Your task to perform on an android device: Search for a new foundation on Sephora Image 0: 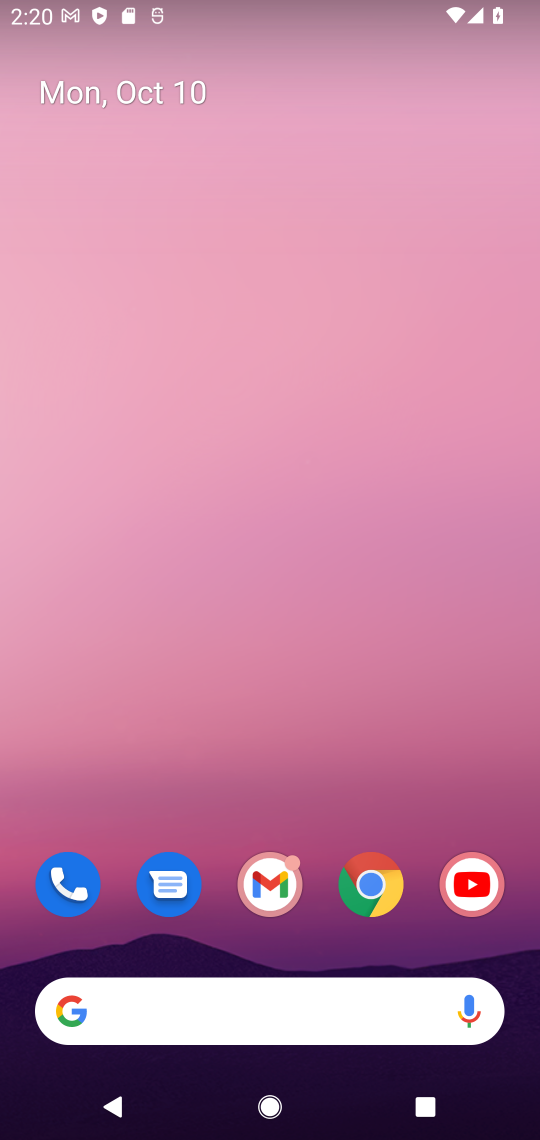
Step 0: click (380, 899)
Your task to perform on an android device: Search for a new foundation on Sephora Image 1: 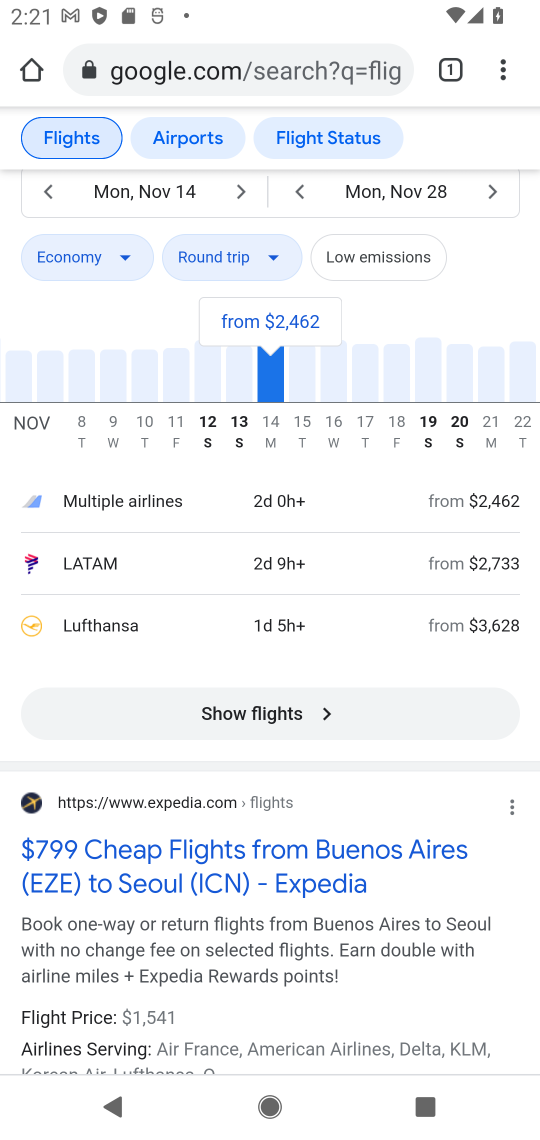
Step 1: click (207, 78)
Your task to perform on an android device: Search for a new foundation on Sephora Image 2: 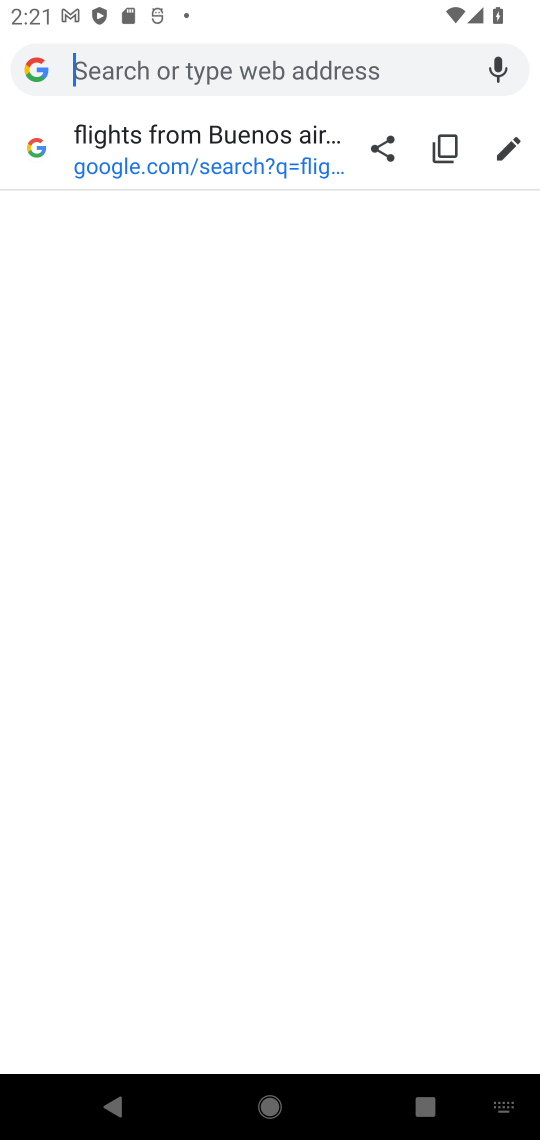
Step 2: type "new foundation on Sephora"
Your task to perform on an android device: Search for a new foundation on Sephora Image 3: 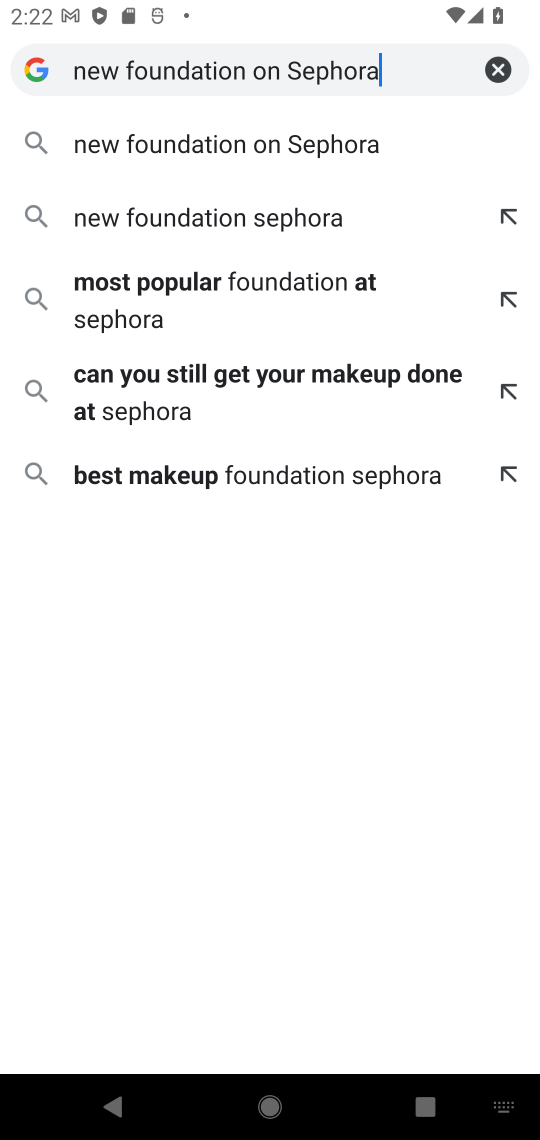
Step 3: click (274, 150)
Your task to perform on an android device: Search for a new foundation on Sephora Image 4: 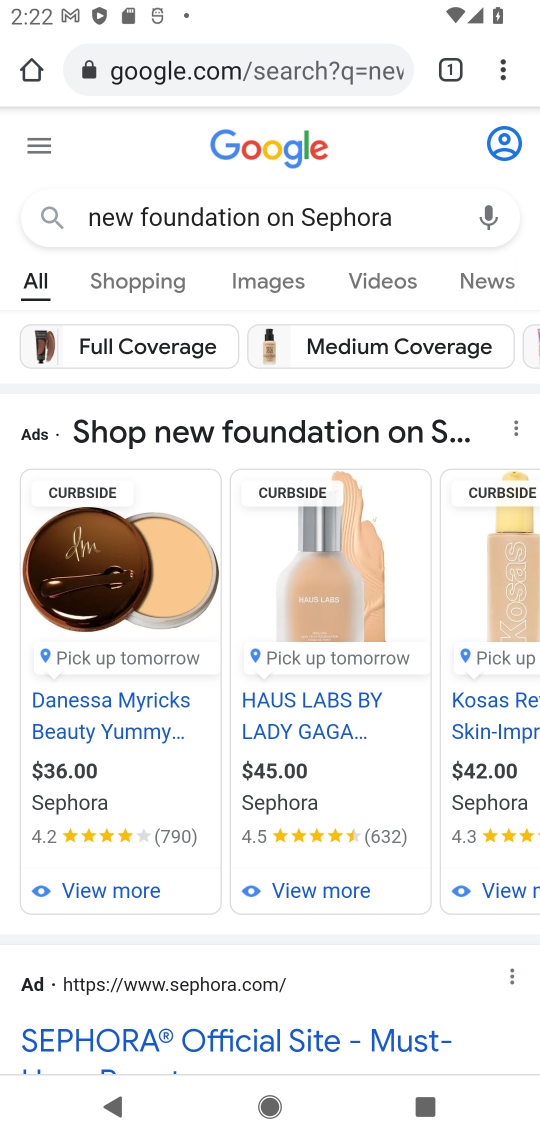
Step 4: click (126, 1035)
Your task to perform on an android device: Search for a new foundation on Sephora Image 5: 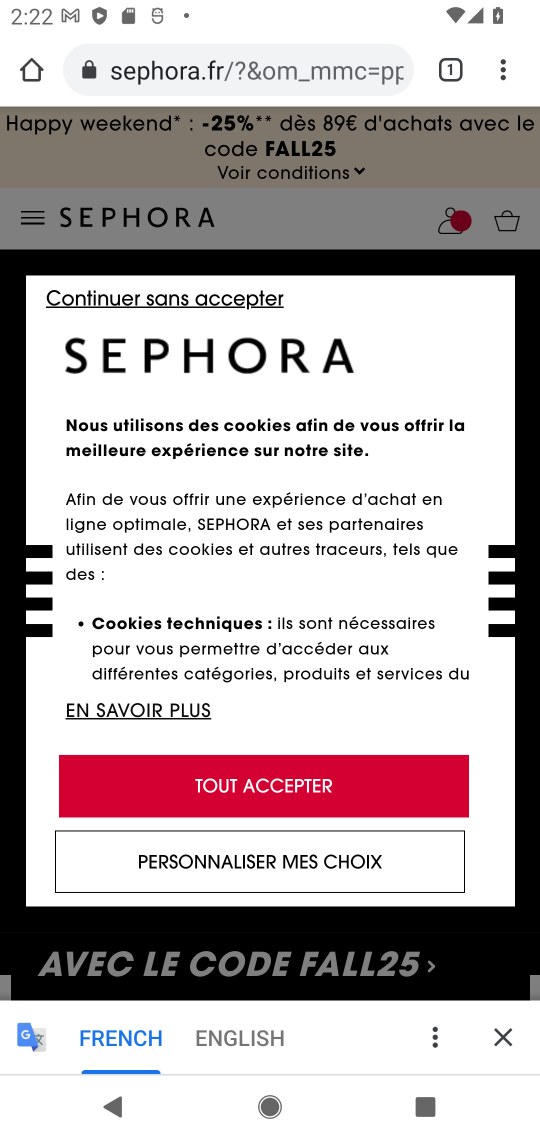
Step 5: click (229, 788)
Your task to perform on an android device: Search for a new foundation on Sephora Image 6: 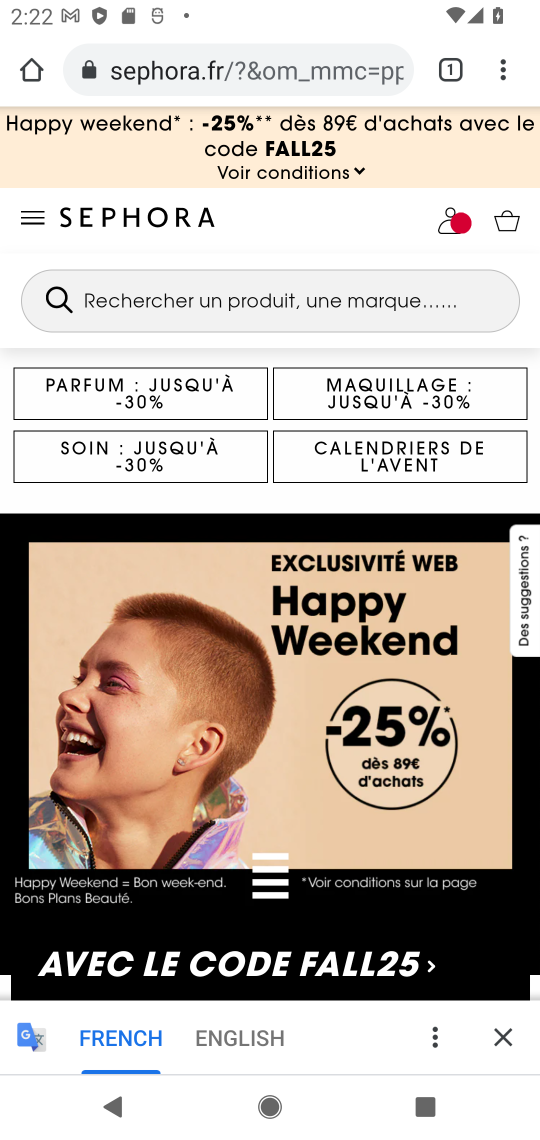
Step 6: click (168, 297)
Your task to perform on an android device: Search for a new foundation on Sephora Image 7: 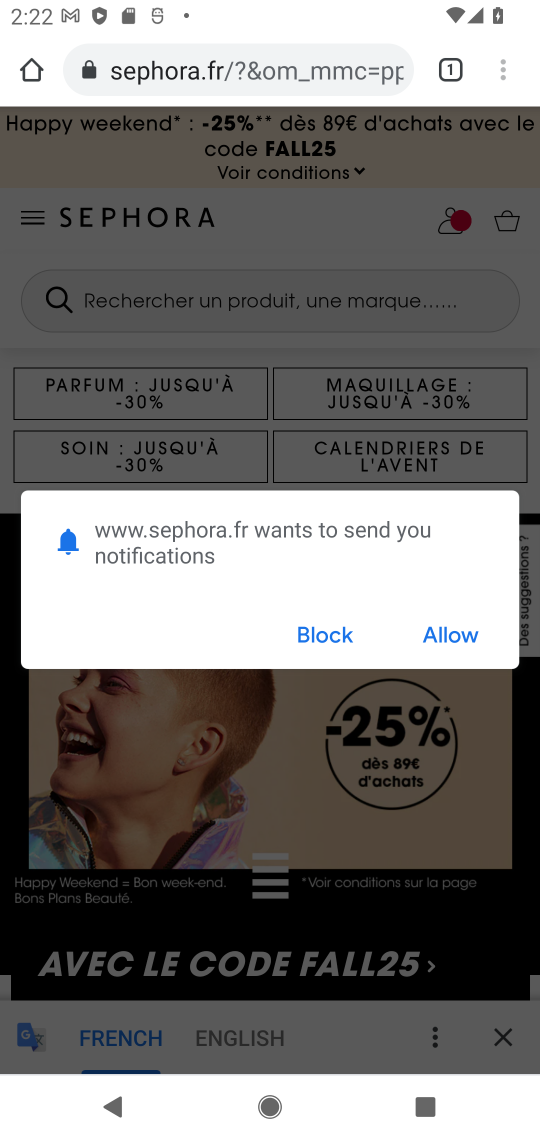
Step 7: click (325, 640)
Your task to perform on an android device: Search for a new foundation on Sephora Image 8: 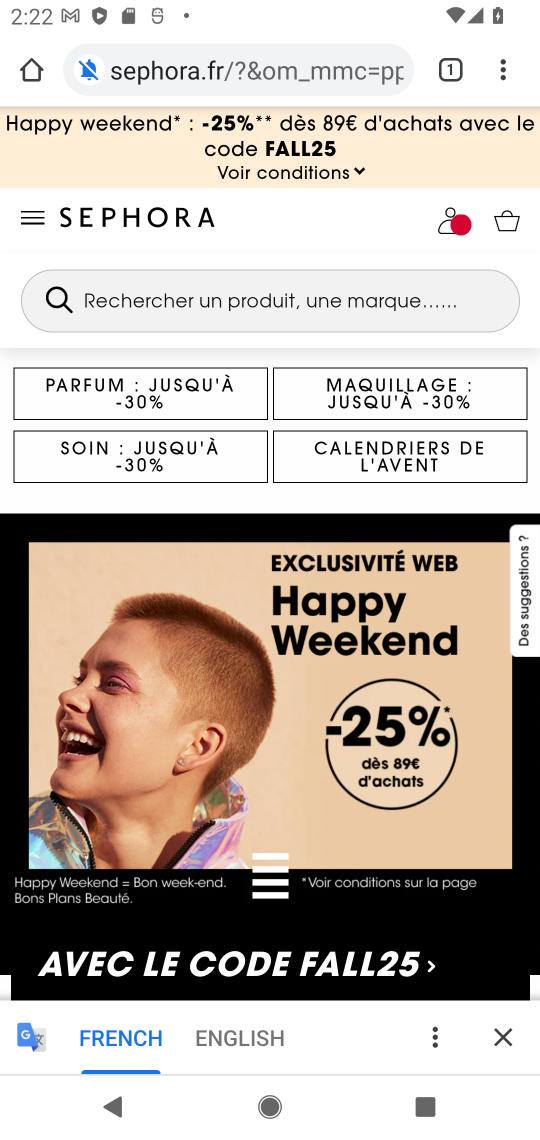
Step 8: click (141, 307)
Your task to perform on an android device: Search for a new foundation on Sephora Image 9: 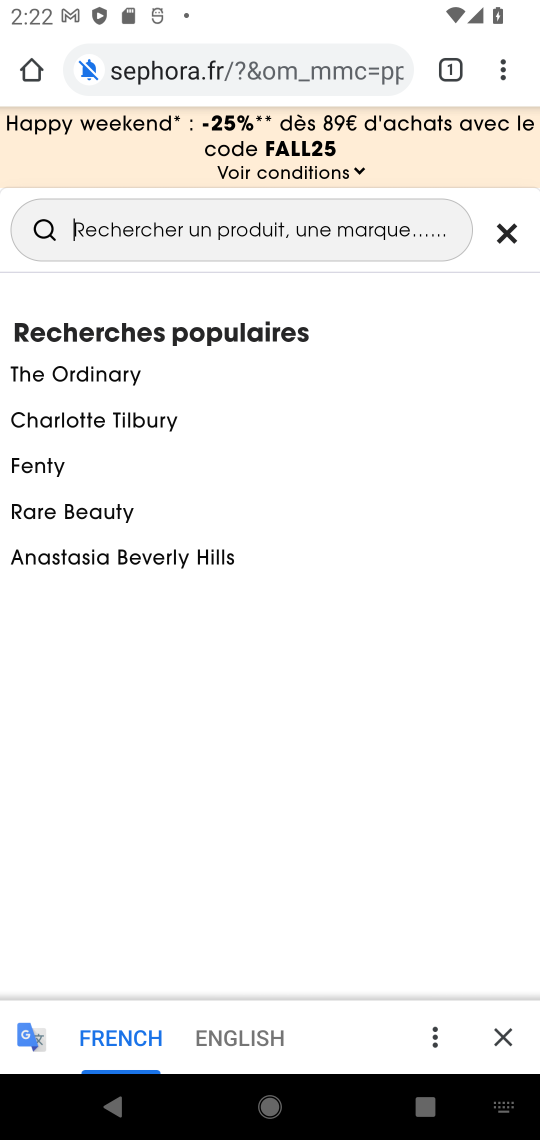
Step 9: click (134, 237)
Your task to perform on an android device: Search for a new foundation on Sephora Image 10: 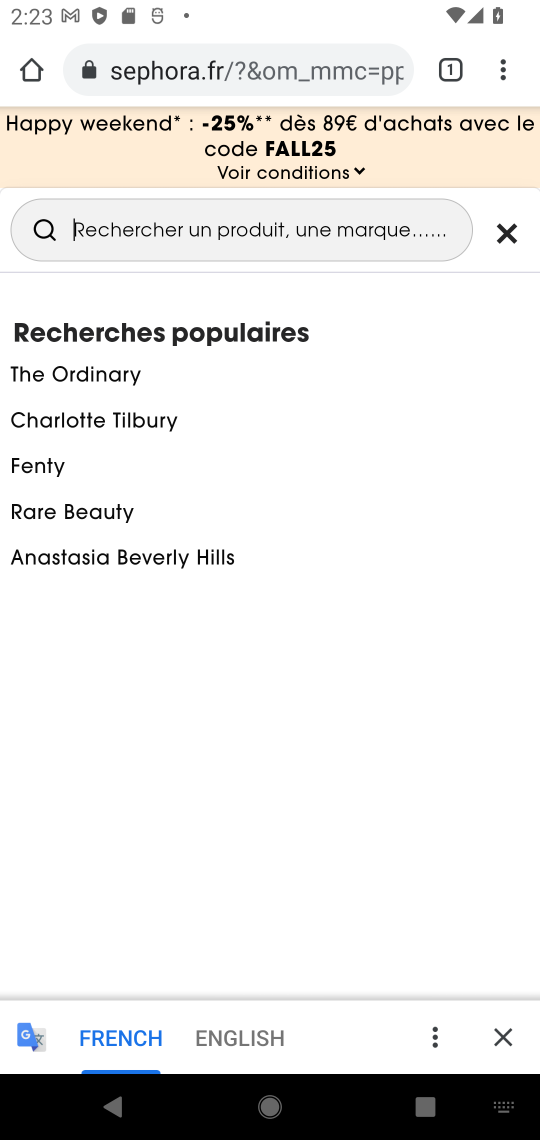
Step 10: type "new foundation"
Your task to perform on an android device: Search for a new foundation on Sephora Image 11: 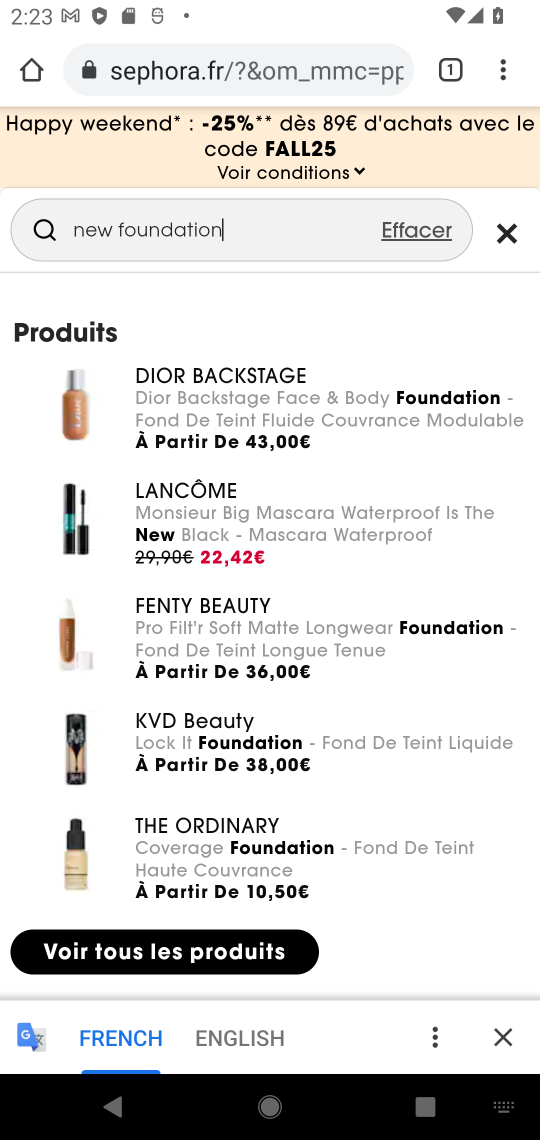
Step 11: task complete